Your task to perform on an android device: move an email to a new category in the gmail app Image 0: 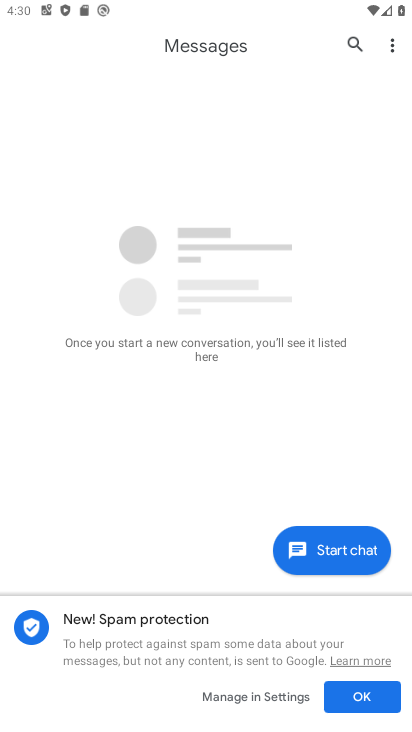
Step 0: press home button
Your task to perform on an android device: move an email to a new category in the gmail app Image 1: 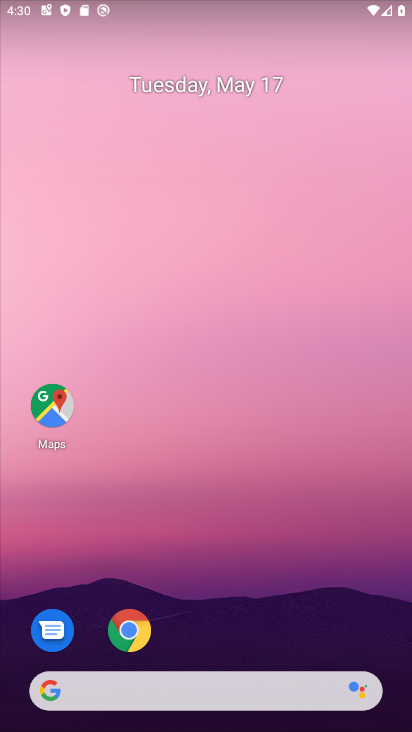
Step 1: drag from (308, 639) to (270, 99)
Your task to perform on an android device: move an email to a new category in the gmail app Image 2: 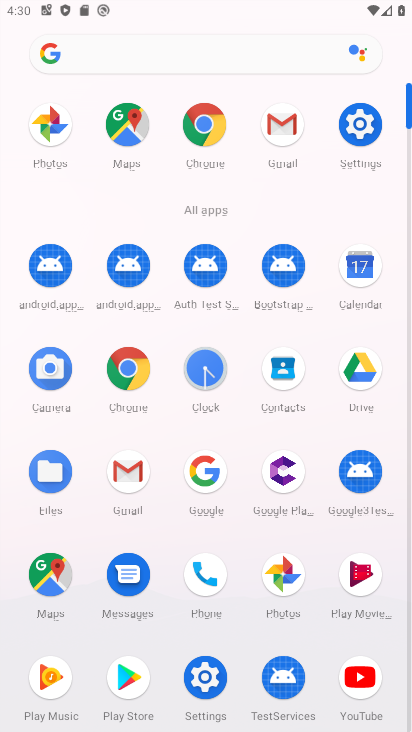
Step 2: click (274, 117)
Your task to perform on an android device: move an email to a new category in the gmail app Image 3: 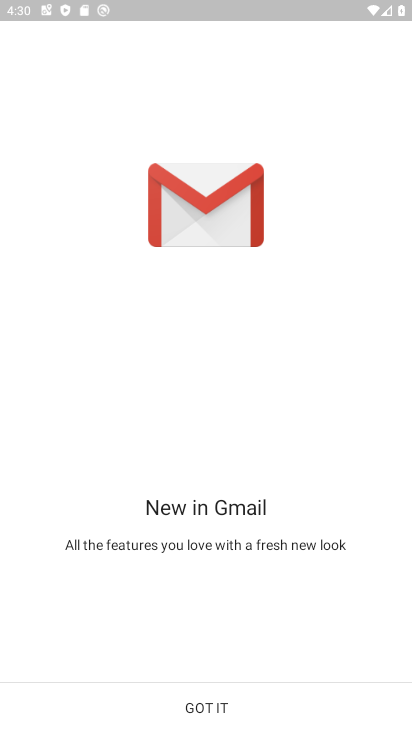
Step 3: click (186, 696)
Your task to perform on an android device: move an email to a new category in the gmail app Image 4: 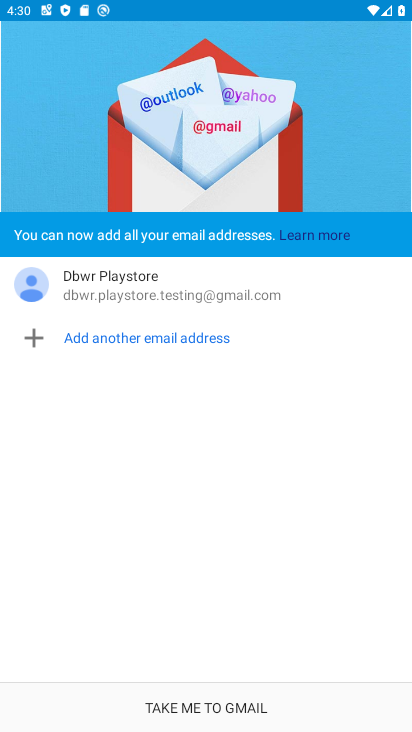
Step 4: click (197, 699)
Your task to perform on an android device: move an email to a new category in the gmail app Image 5: 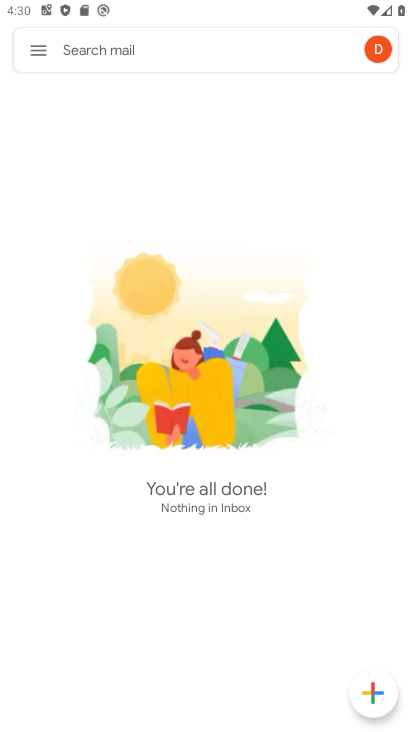
Step 5: task complete